Your task to perform on an android device: Add "logitech g903" to the cart on ebay Image 0: 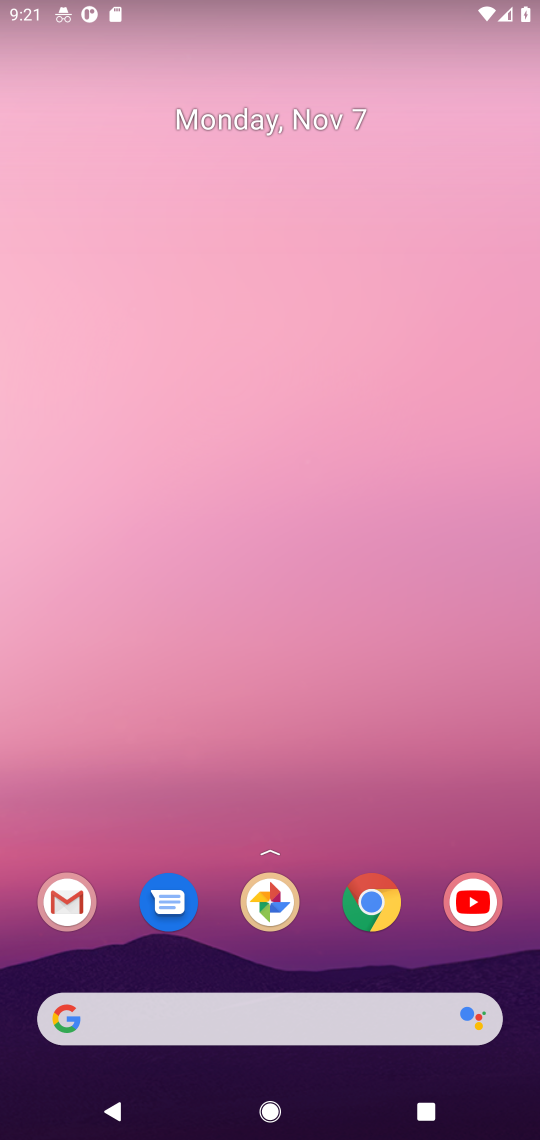
Step 0: click (381, 906)
Your task to perform on an android device: Add "logitech g903" to the cart on ebay Image 1: 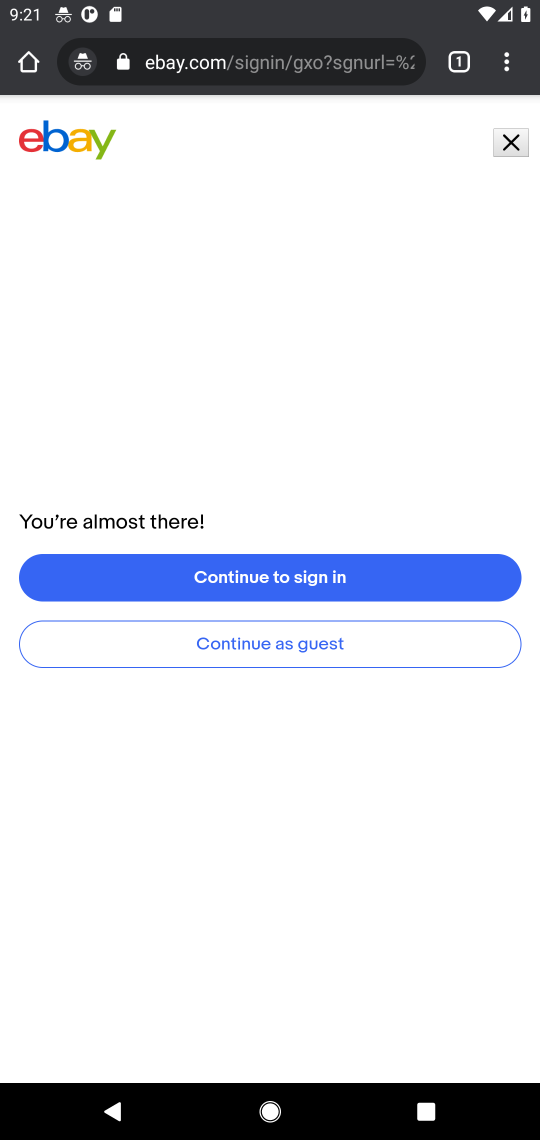
Step 1: click (509, 145)
Your task to perform on an android device: Add "logitech g903" to the cart on ebay Image 2: 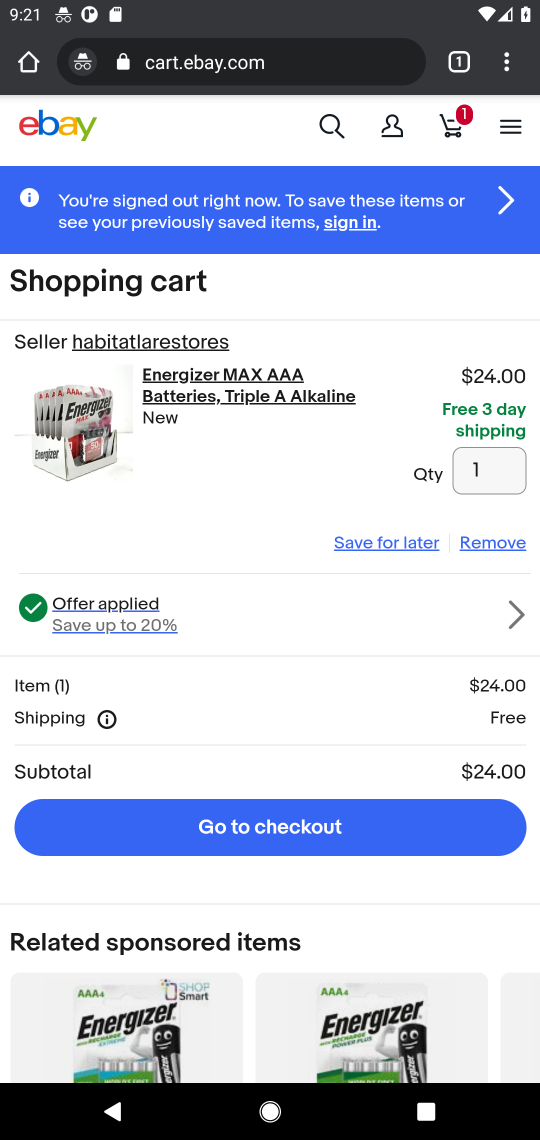
Step 2: click (335, 125)
Your task to perform on an android device: Add "logitech g903" to the cart on ebay Image 3: 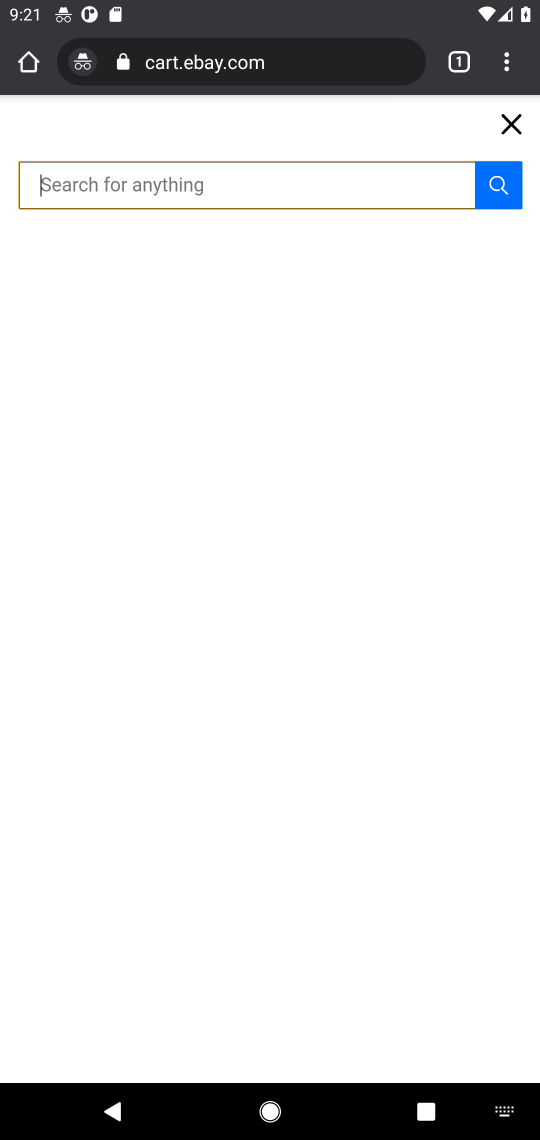
Step 3: type "logitech g903"
Your task to perform on an android device: Add "logitech g903" to the cart on ebay Image 4: 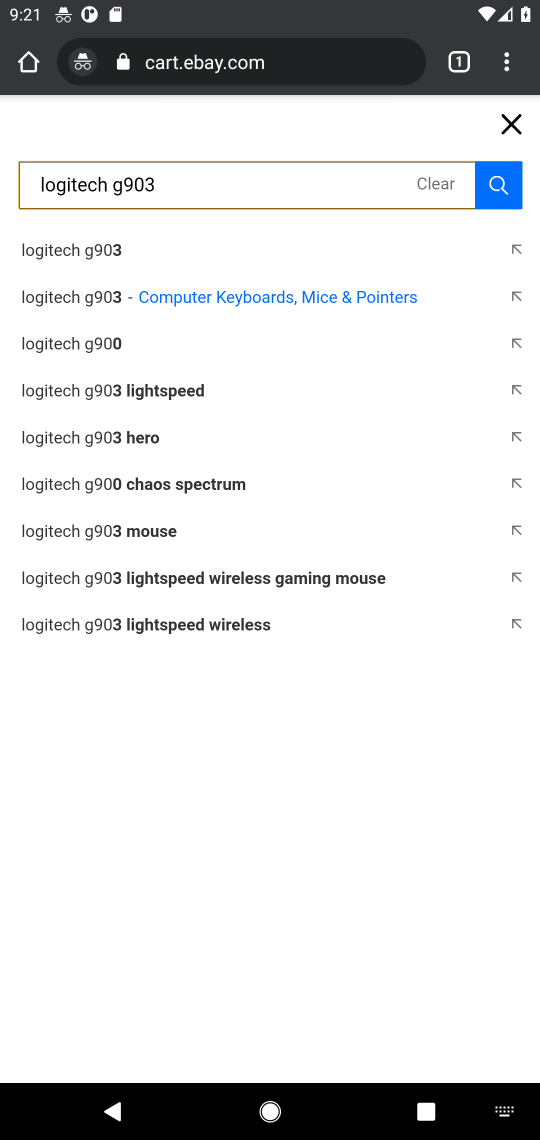
Step 4: click (98, 248)
Your task to perform on an android device: Add "logitech g903" to the cart on ebay Image 5: 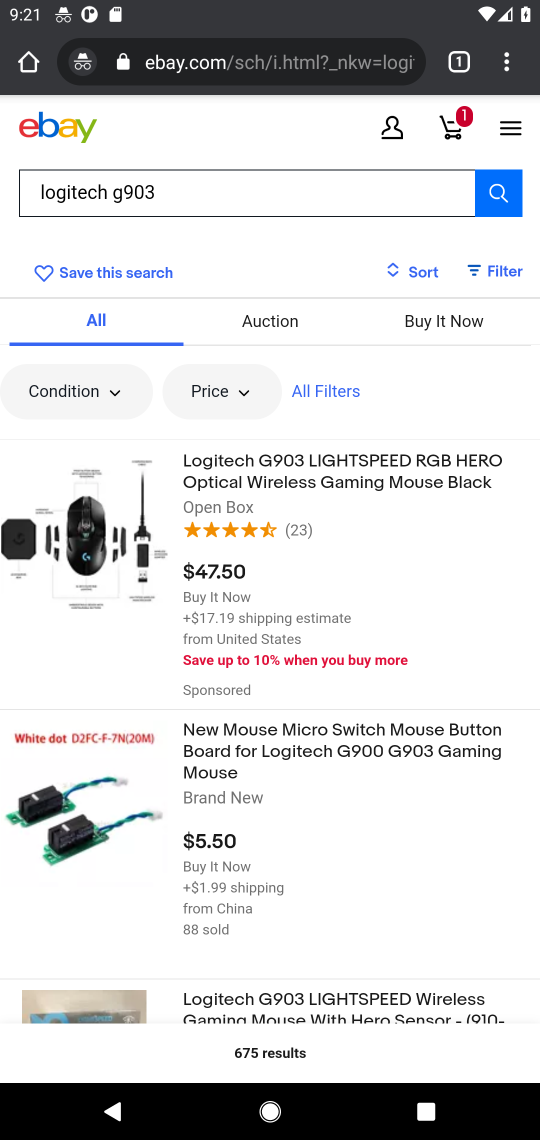
Step 5: click (220, 593)
Your task to perform on an android device: Add "logitech g903" to the cart on ebay Image 6: 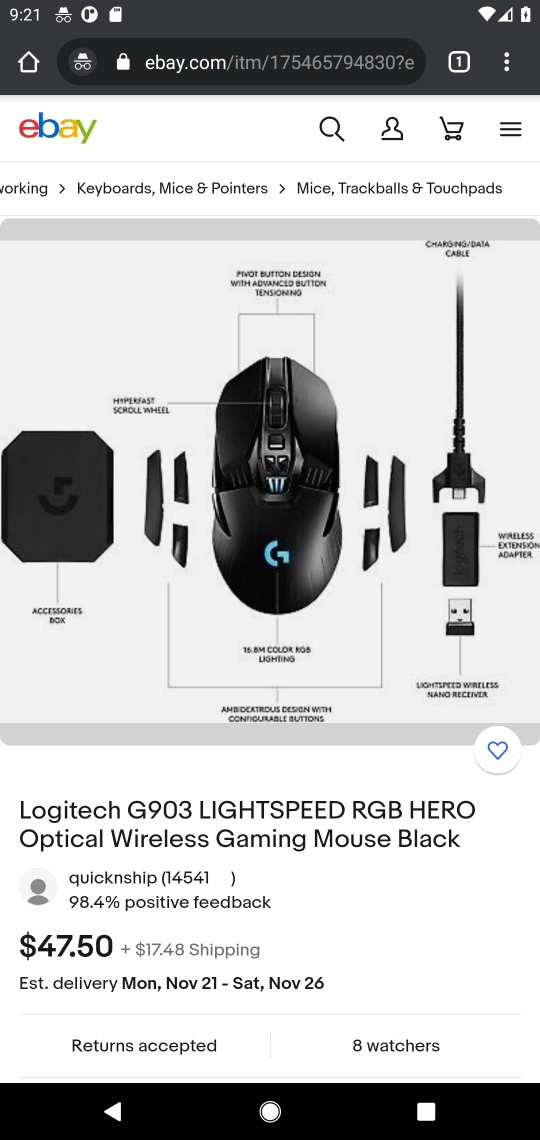
Step 6: drag from (287, 821) to (301, 387)
Your task to perform on an android device: Add "logitech g903" to the cart on ebay Image 7: 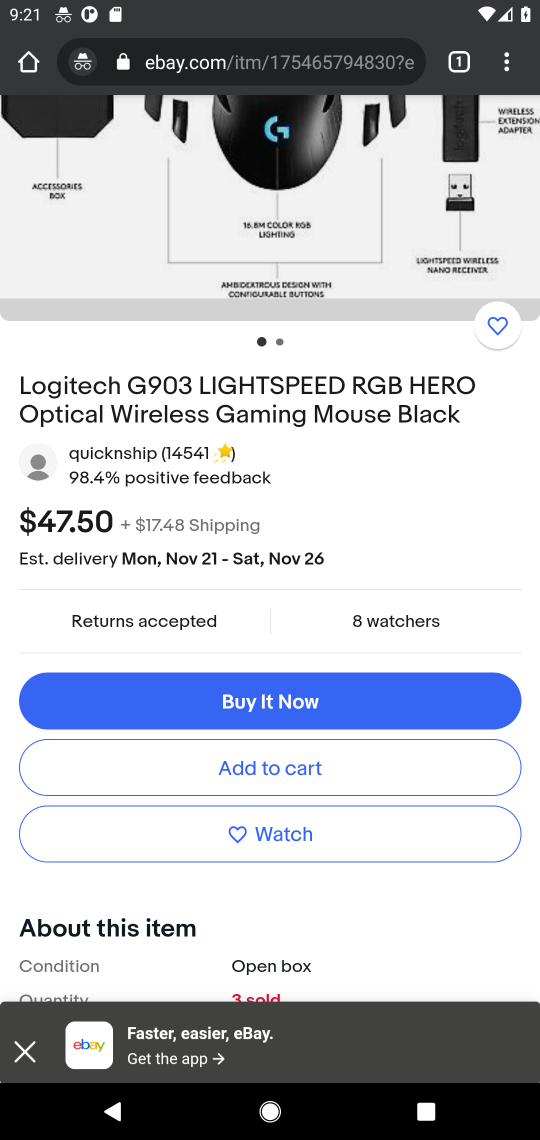
Step 7: click (243, 773)
Your task to perform on an android device: Add "logitech g903" to the cart on ebay Image 8: 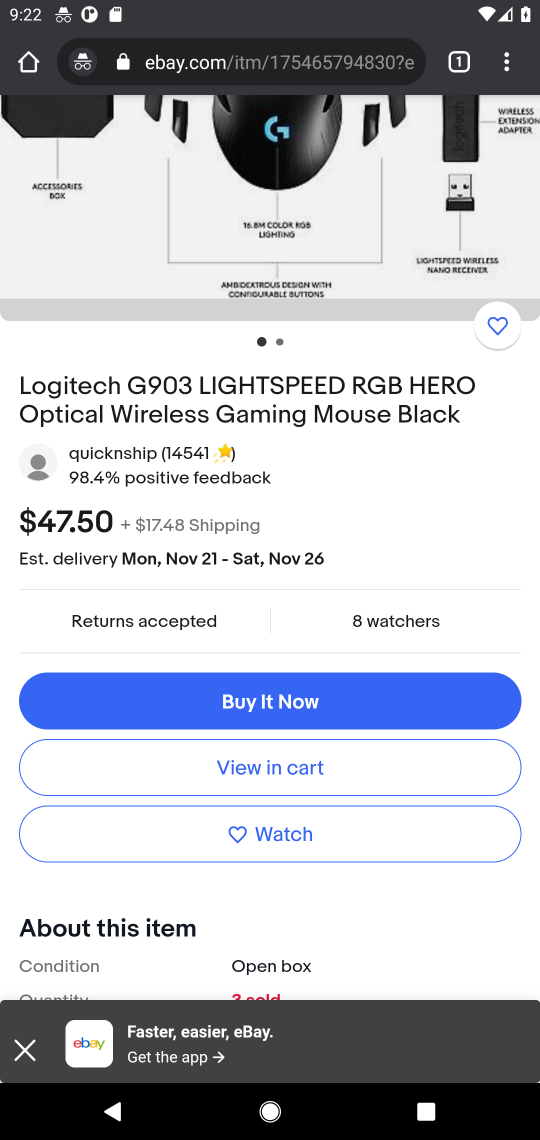
Step 8: task complete